Your task to perform on an android device: open a bookmark in the chrome app Image 0: 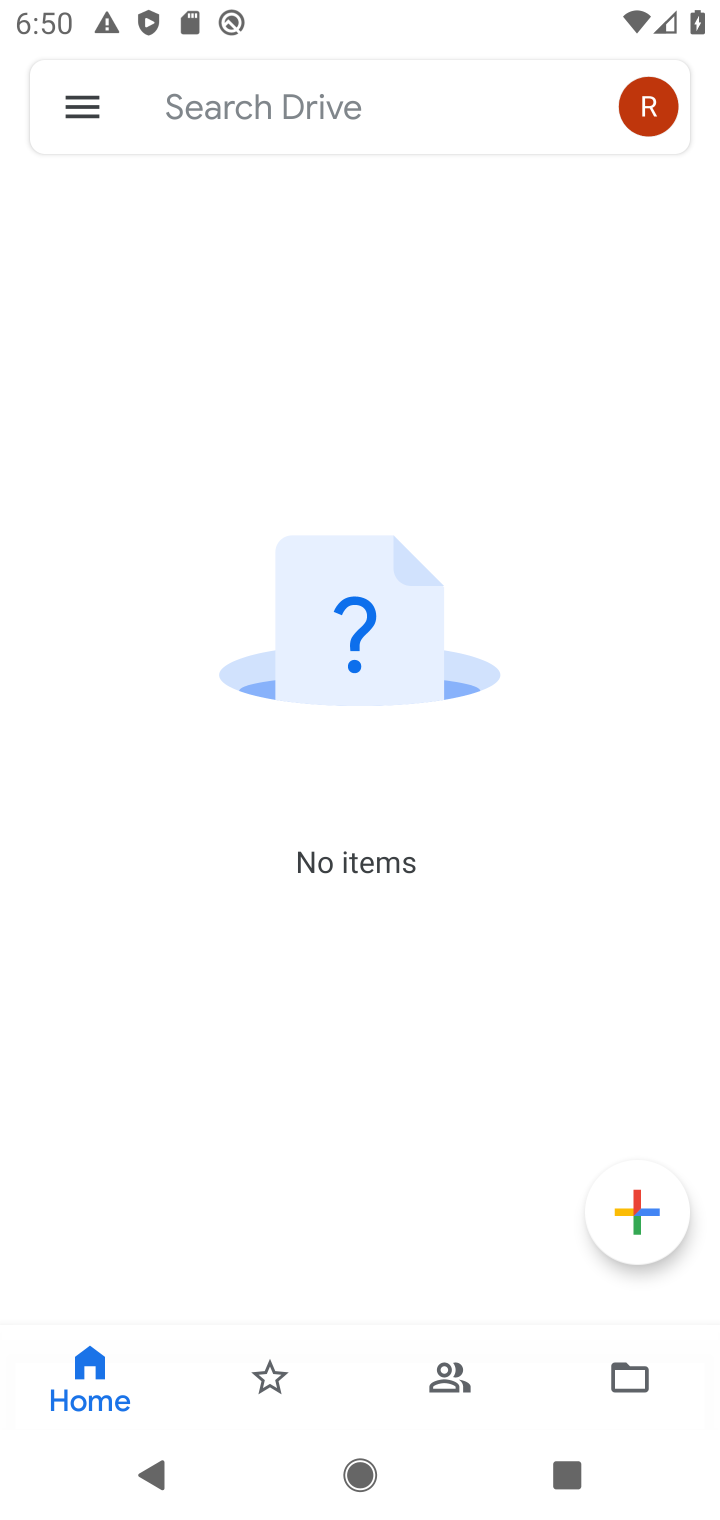
Step 0: press home button
Your task to perform on an android device: open a bookmark in the chrome app Image 1: 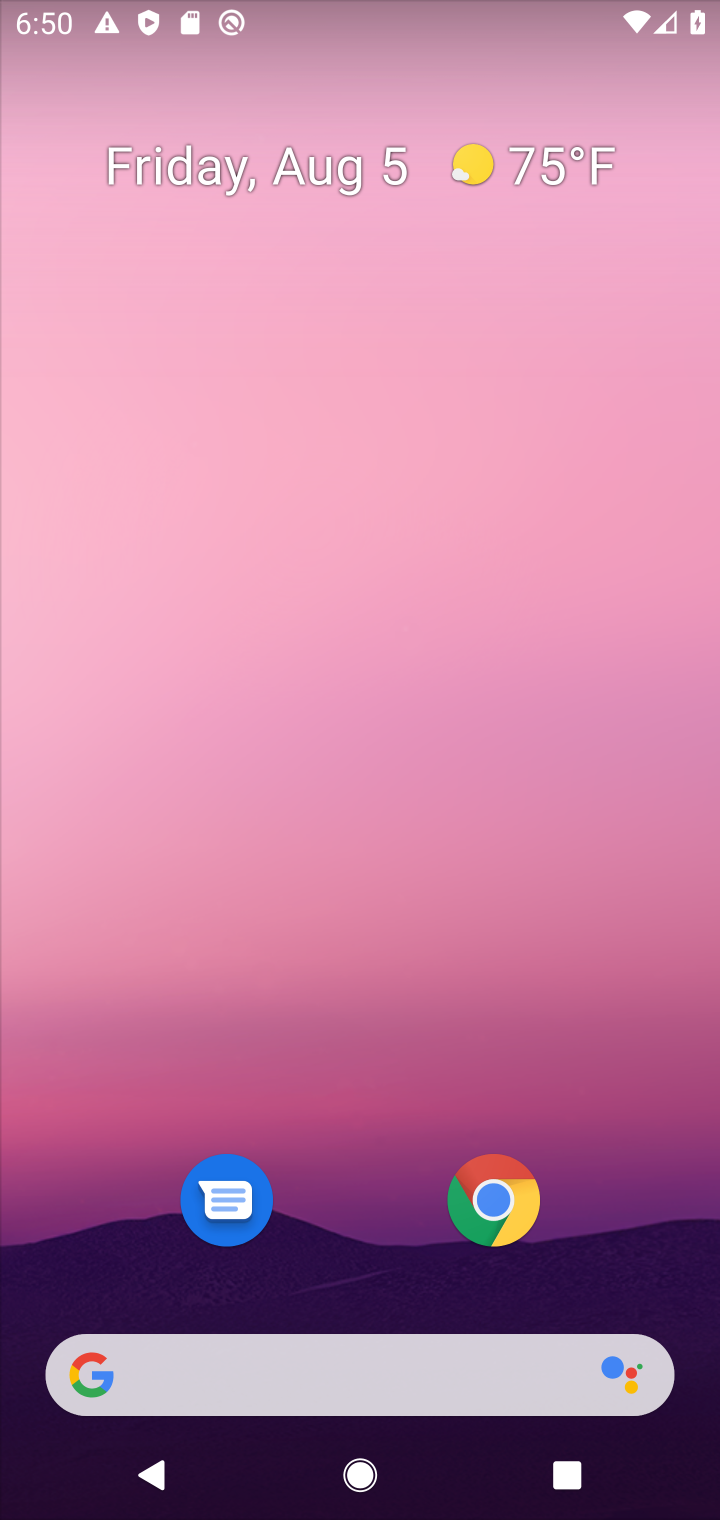
Step 1: click (512, 1186)
Your task to perform on an android device: open a bookmark in the chrome app Image 2: 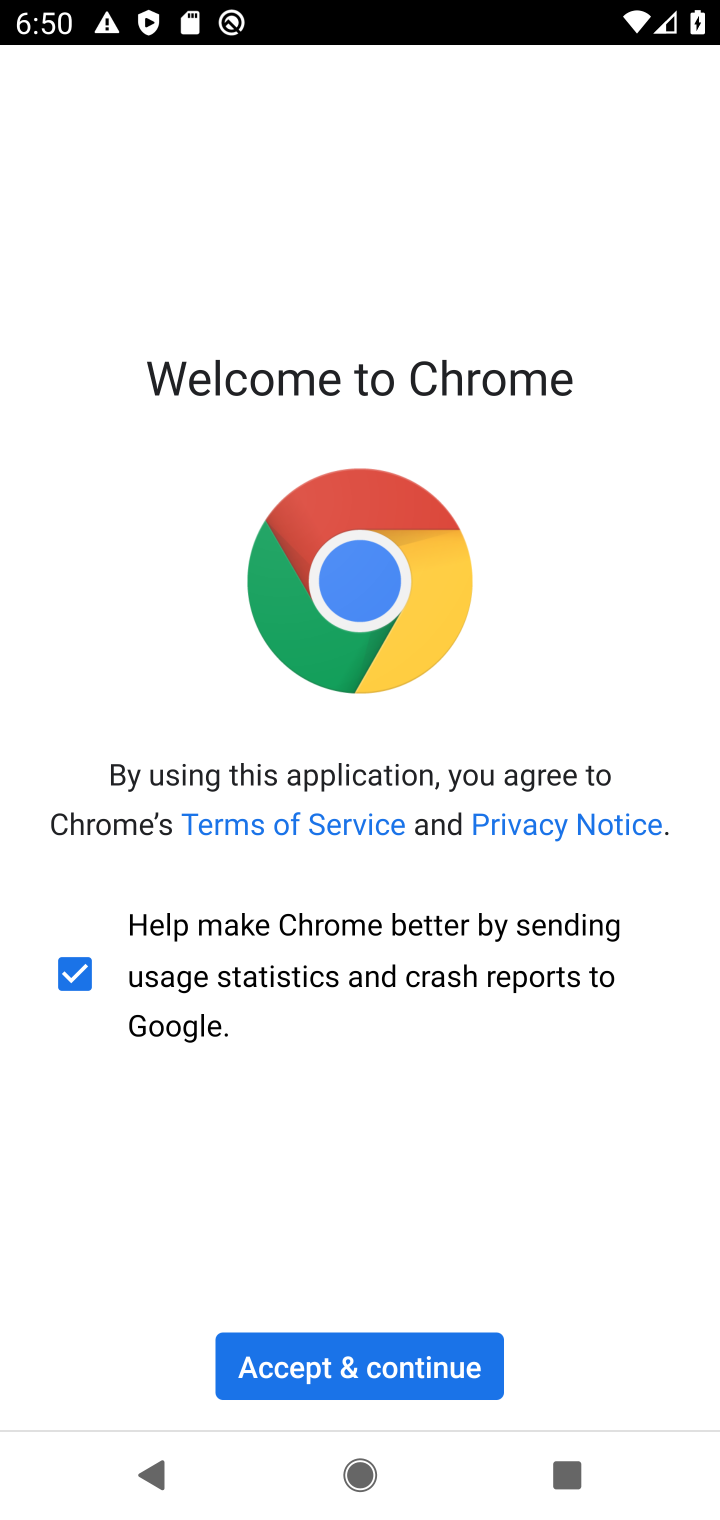
Step 2: click (425, 1353)
Your task to perform on an android device: open a bookmark in the chrome app Image 3: 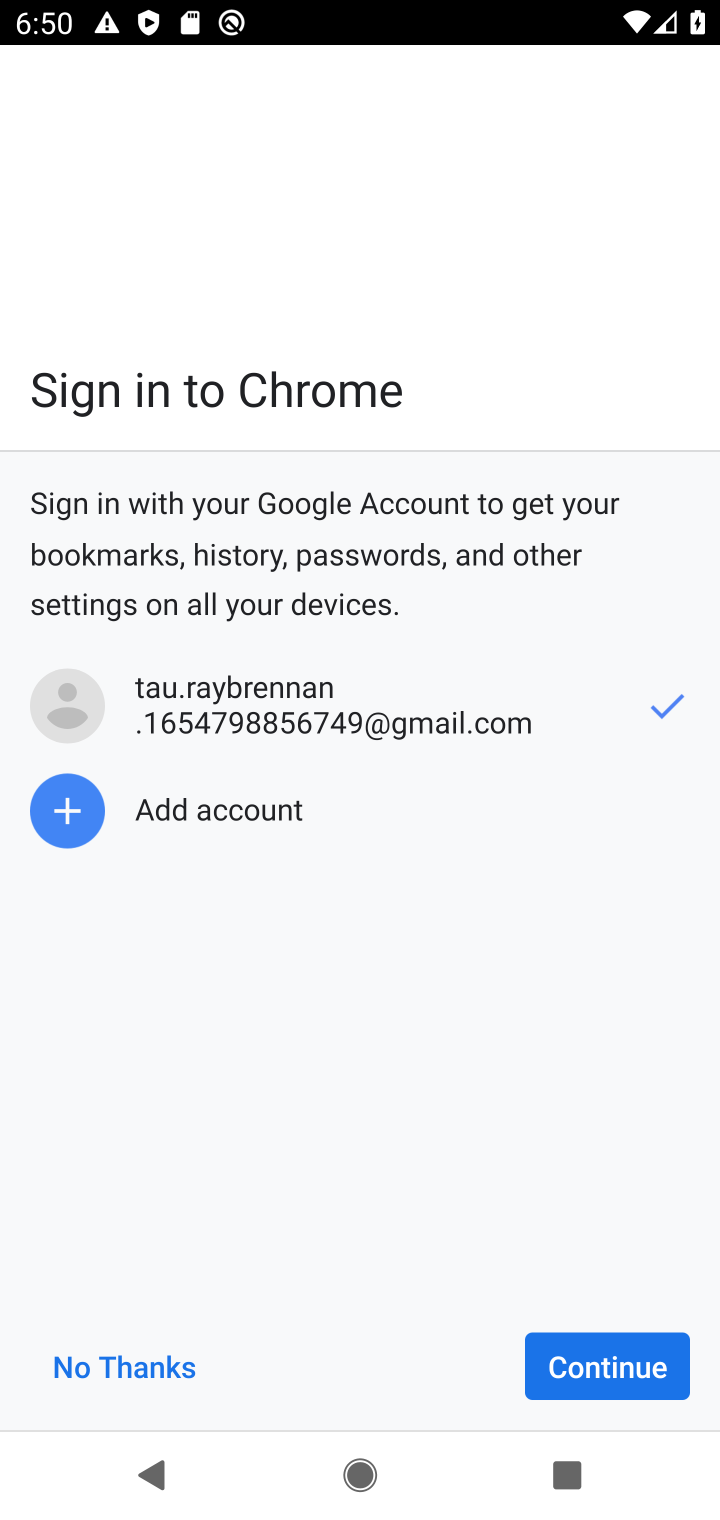
Step 3: click (588, 1365)
Your task to perform on an android device: open a bookmark in the chrome app Image 4: 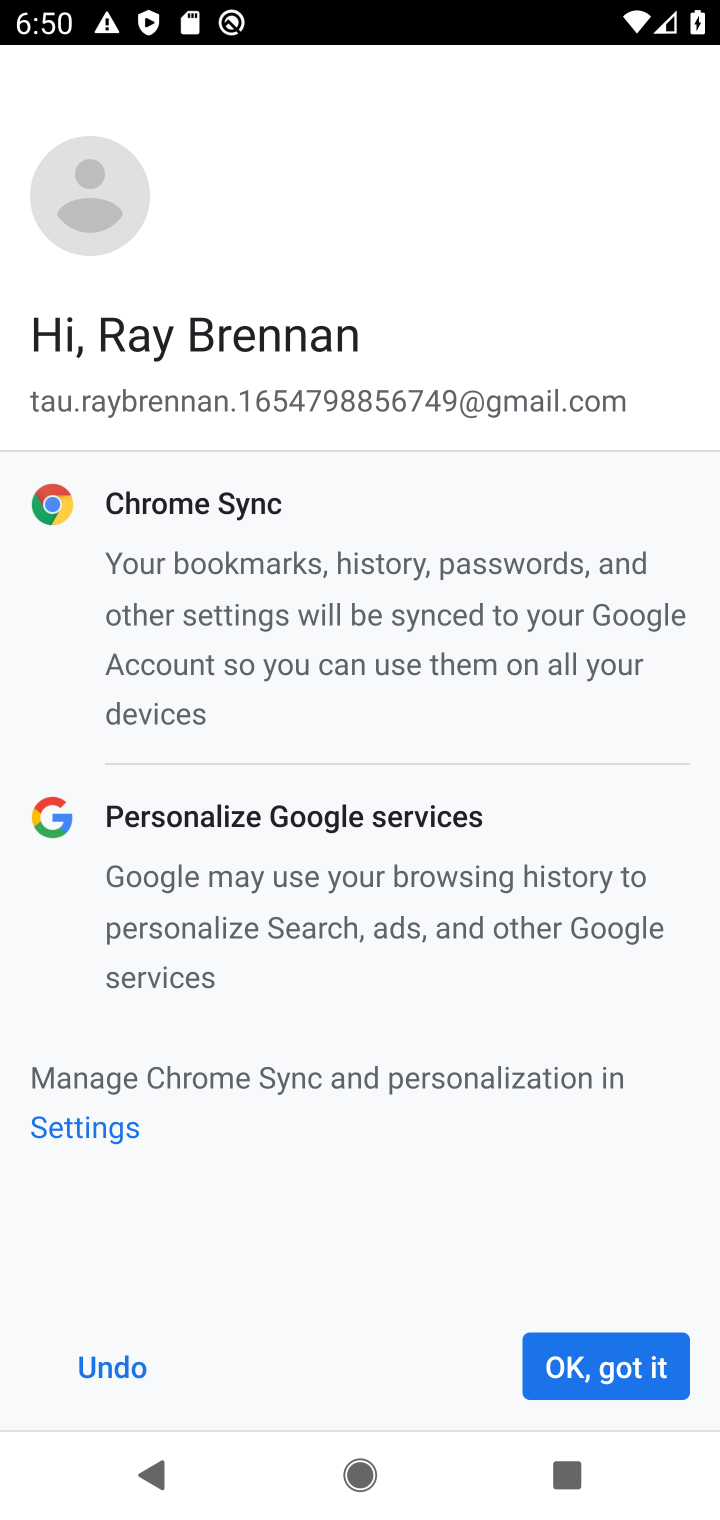
Step 4: click (588, 1365)
Your task to perform on an android device: open a bookmark in the chrome app Image 5: 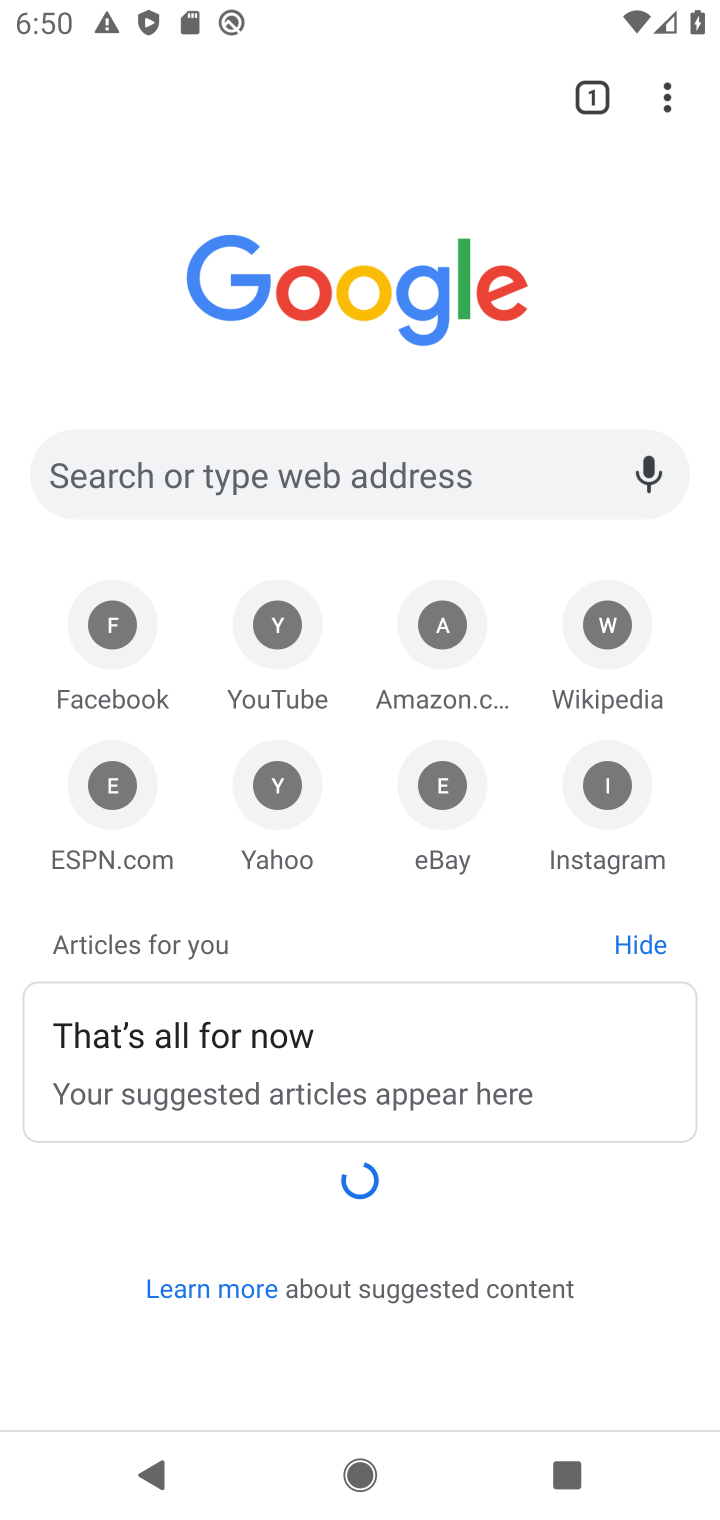
Step 5: click (659, 103)
Your task to perform on an android device: open a bookmark in the chrome app Image 6: 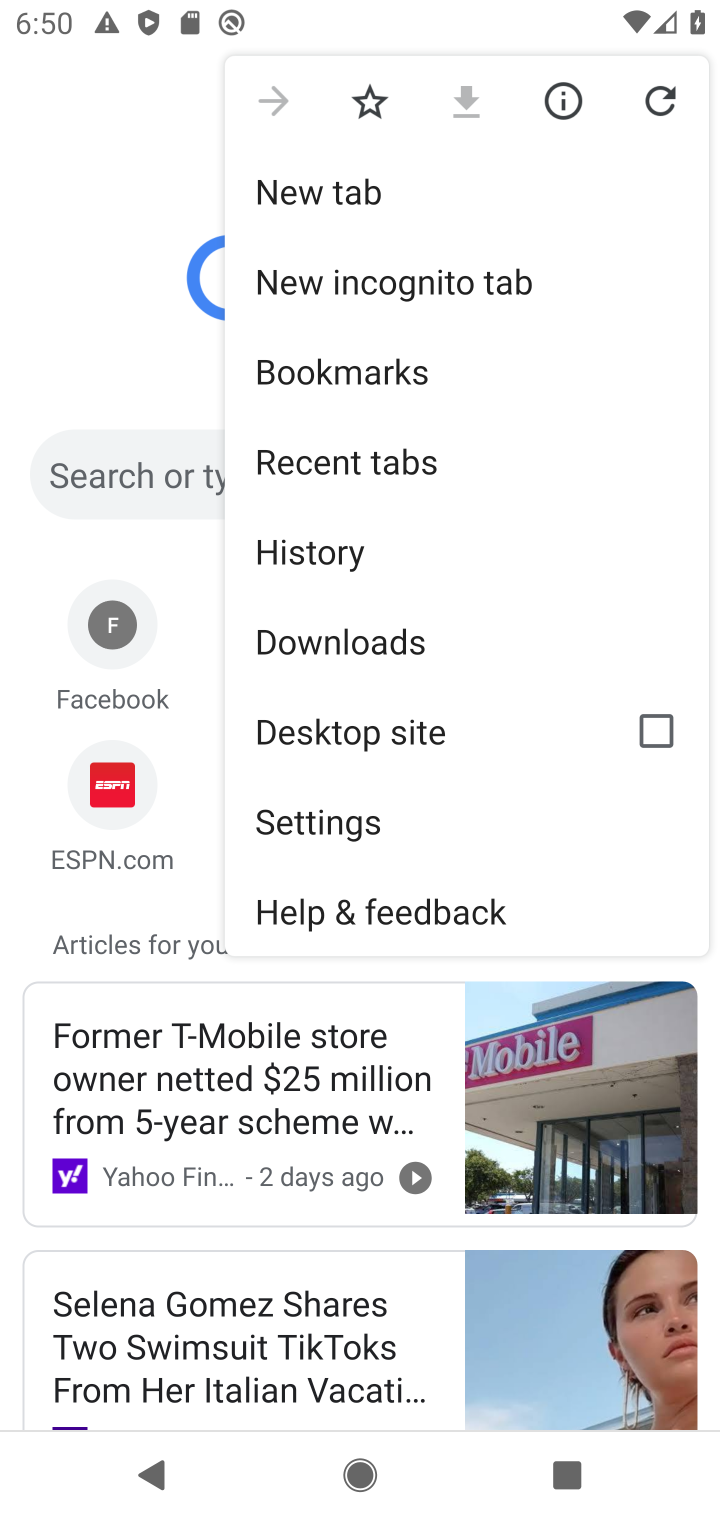
Step 6: click (310, 387)
Your task to perform on an android device: open a bookmark in the chrome app Image 7: 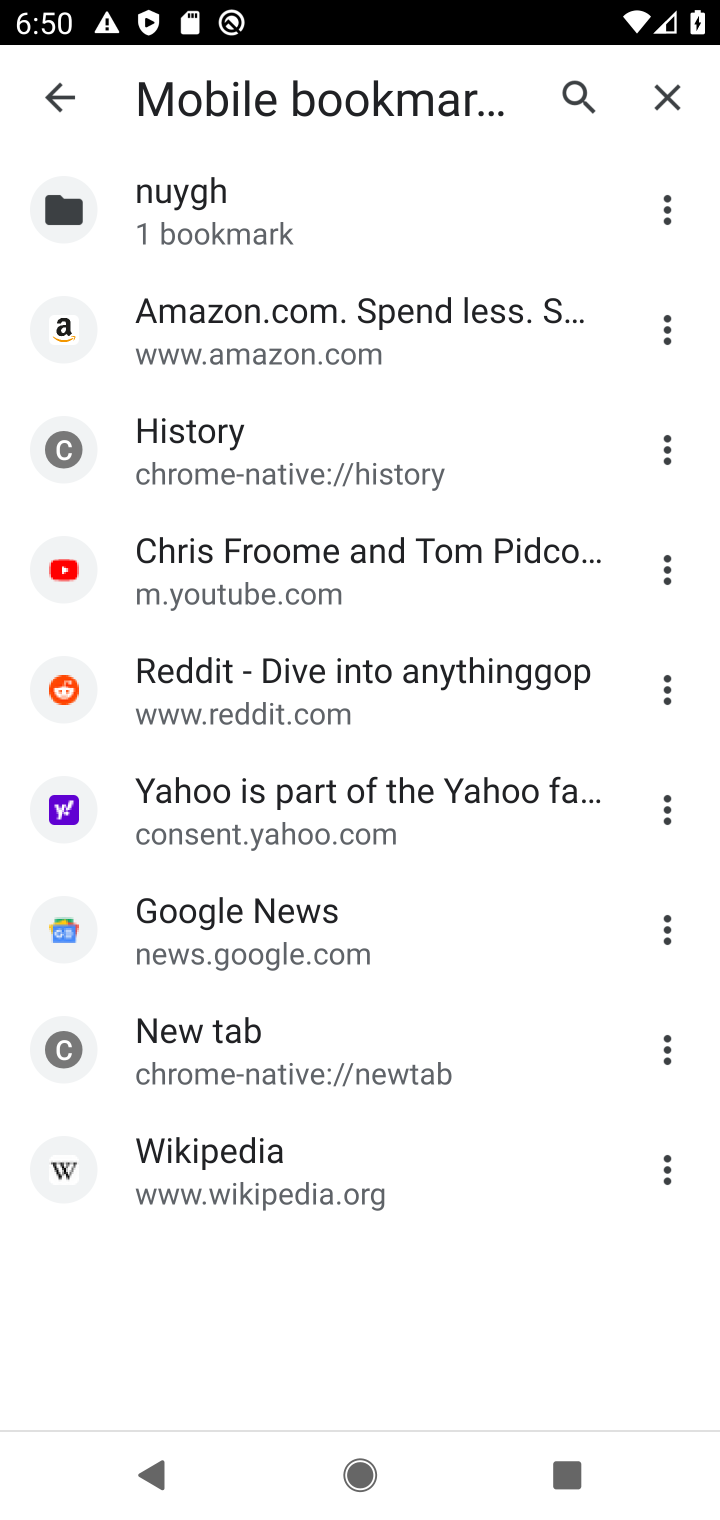
Step 7: click (353, 543)
Your task to perform on an android device: open a bookmark in the chrome app Image 8: 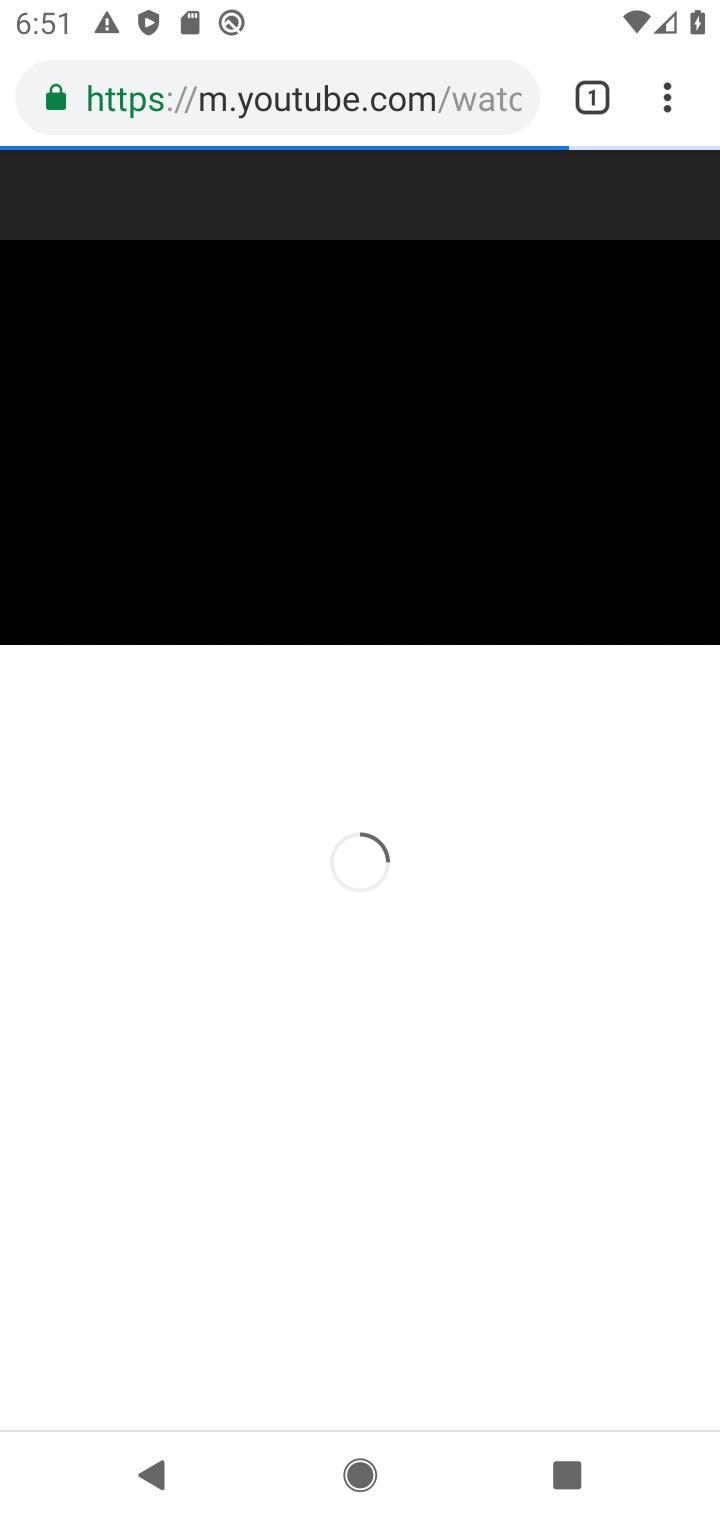
Step 8: task complete